Your task to perform on an android device: find which apps use the phone's location Image 0: 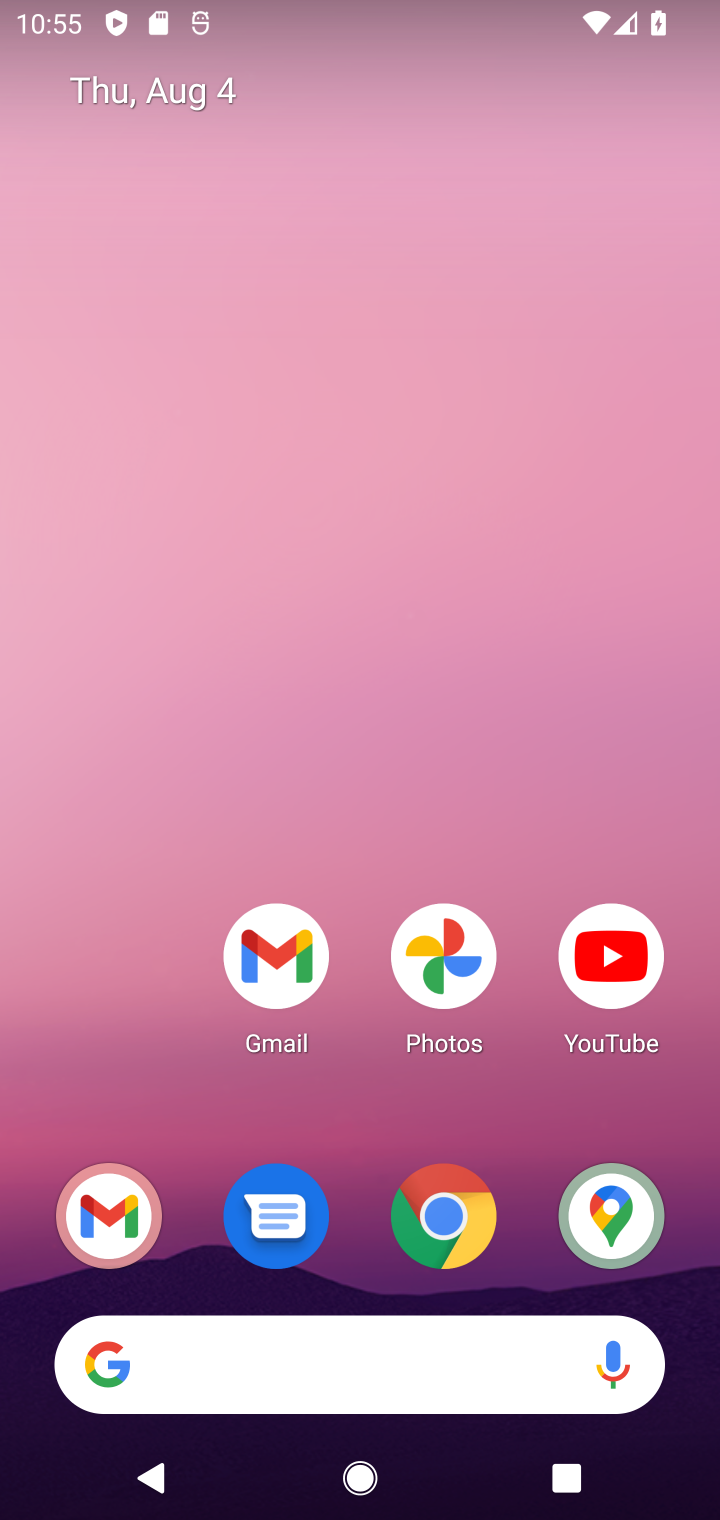
Step 0: drag from (346, 850) to (445, 0)
Your task to perform on an android device: find which apps use the phone's location Image 1: 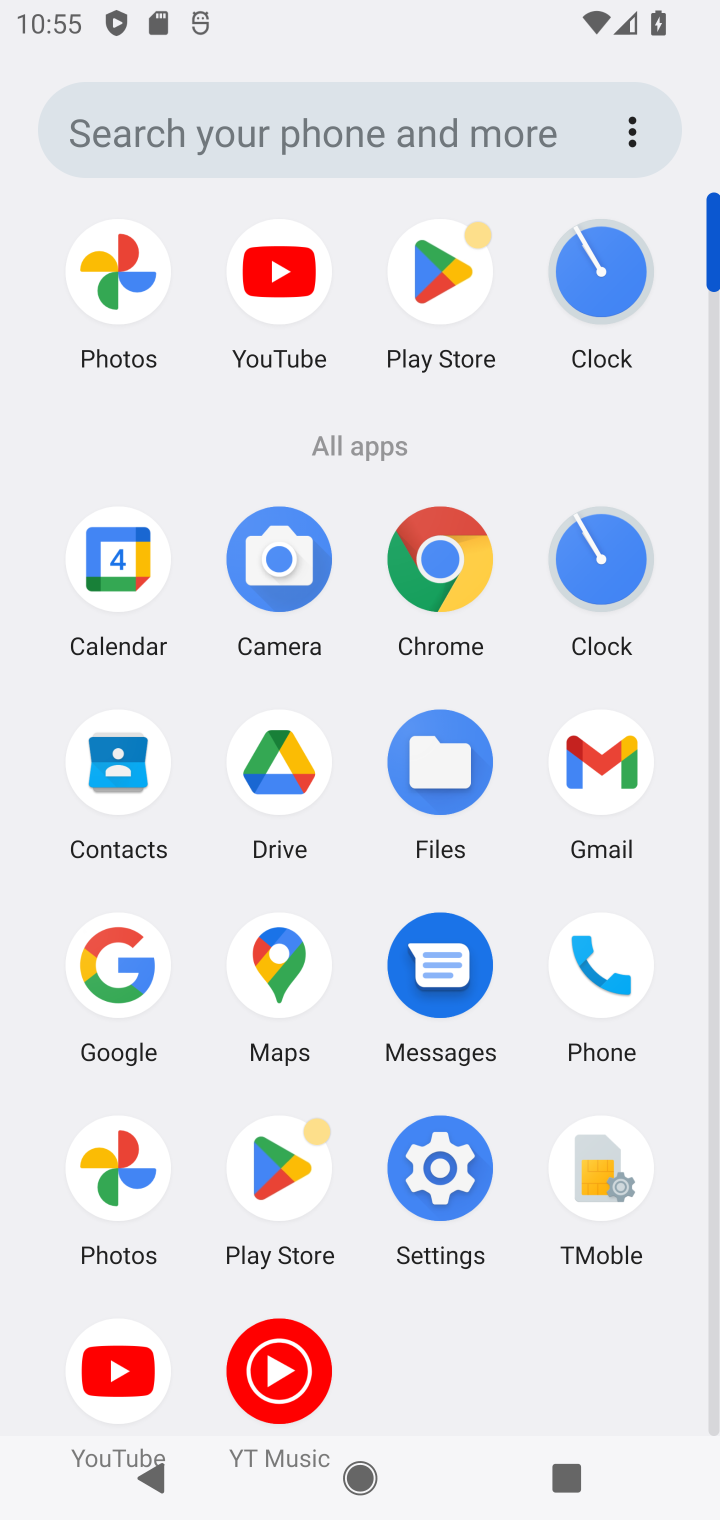
Step 1: click (426, 1162)
Your task to perform on an android device: find which apps use the phone's location Image 2: 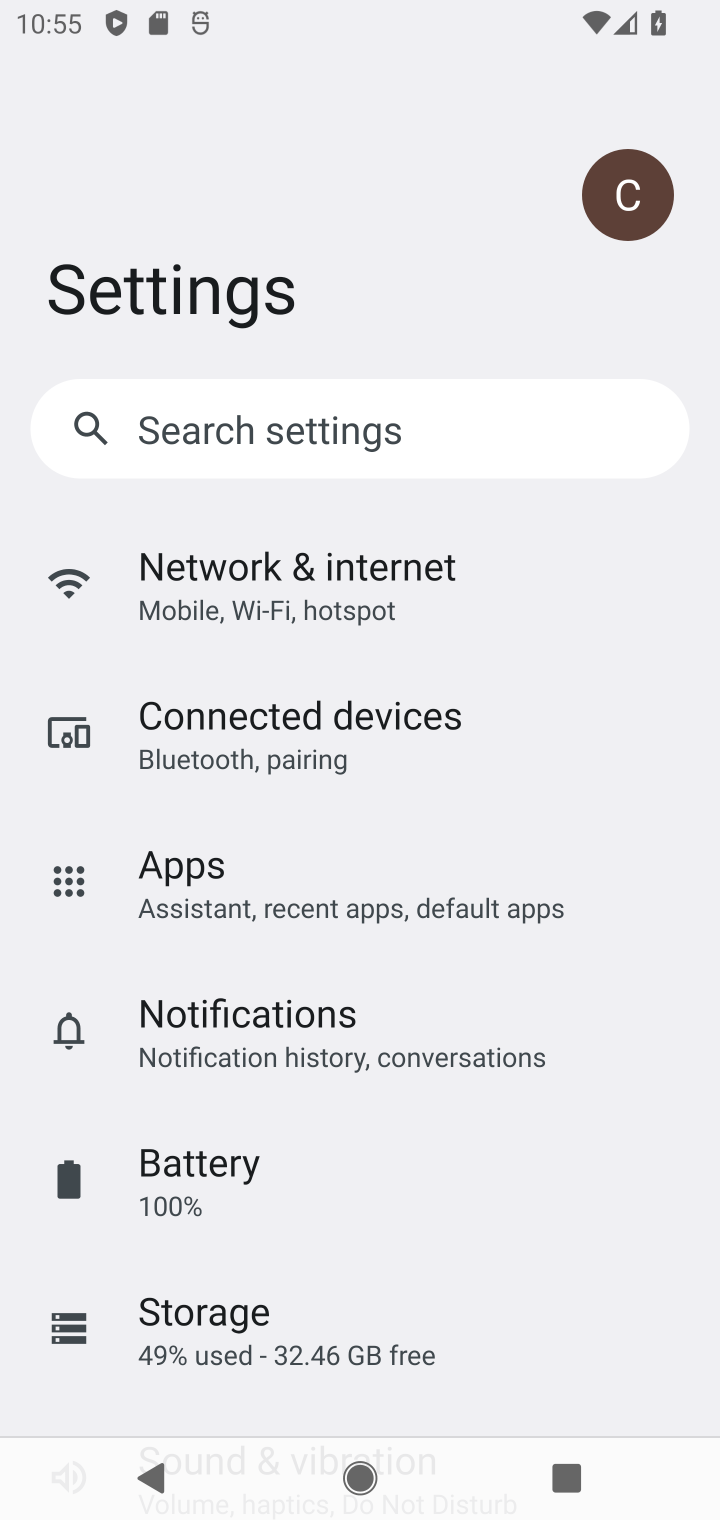
Step 2: drag from (426, 1225) to (455, 1)
Your task to perform on an android device: find which apps use the phone's location Image 3: 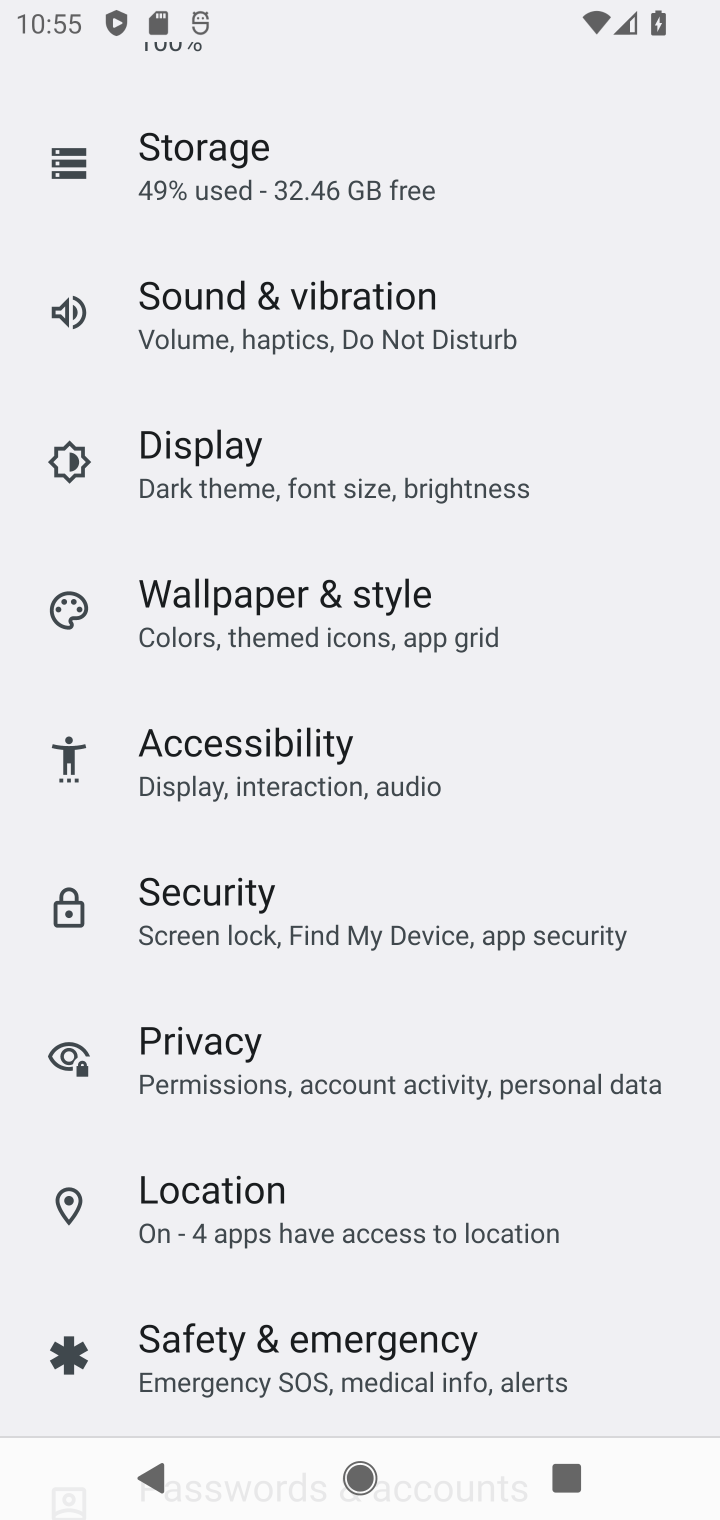
Step 3: click (421, 1189)
Your task to perform on an android device: find which apps use the phone's location Image 4: 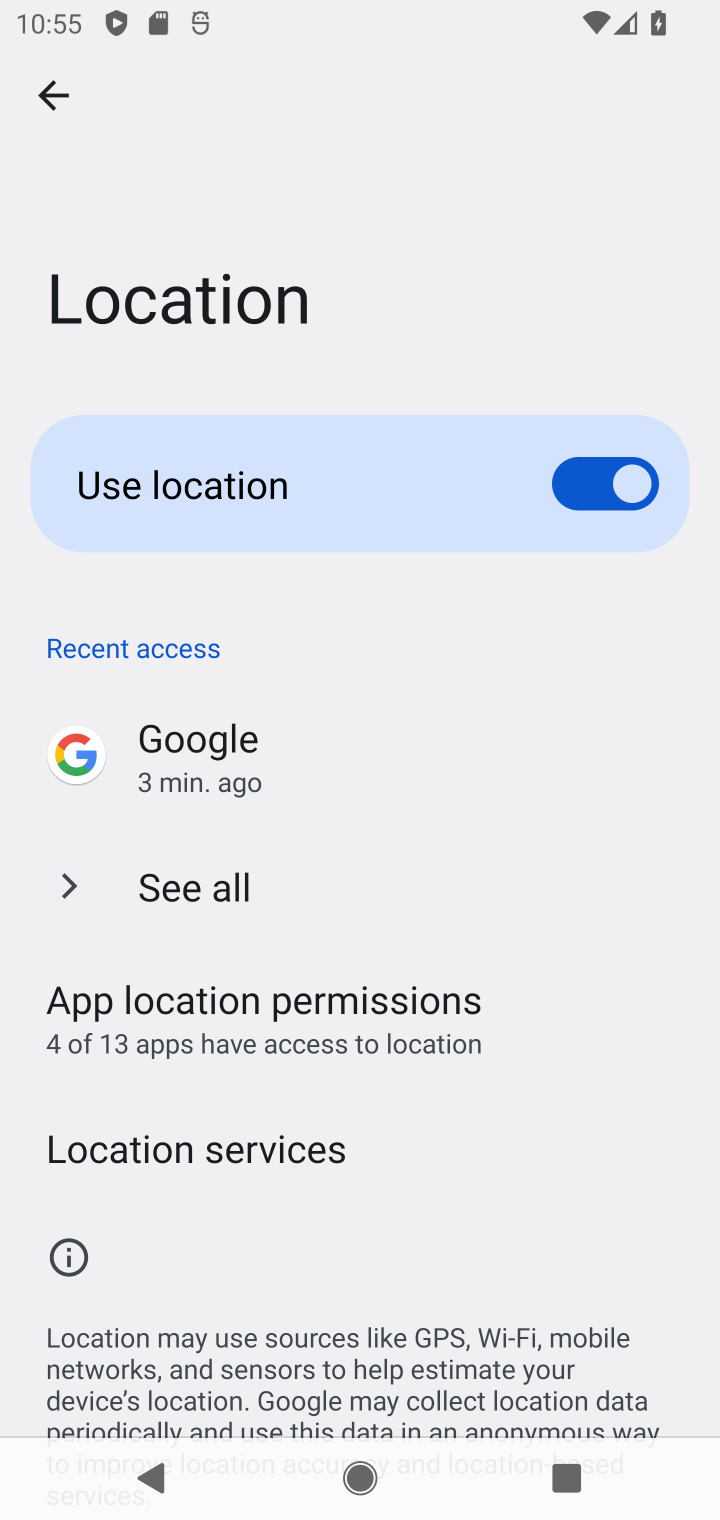
Step 4: click (215, 884)
Your task to perform on an android device: find which apps use the phone's location Image 5: 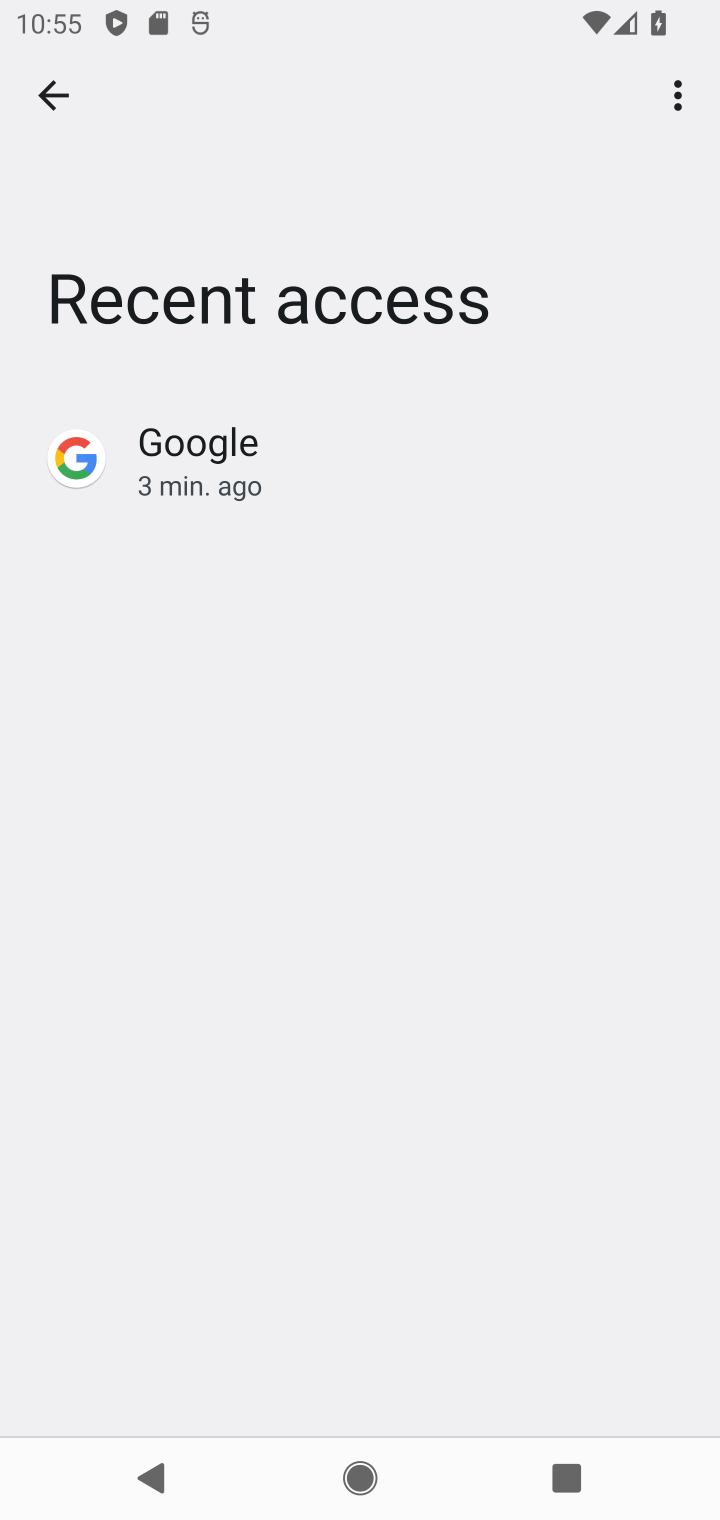
Step 5: click (59, 80)
Your task to perform on an android device: find which apps use the phone's location Image 6: 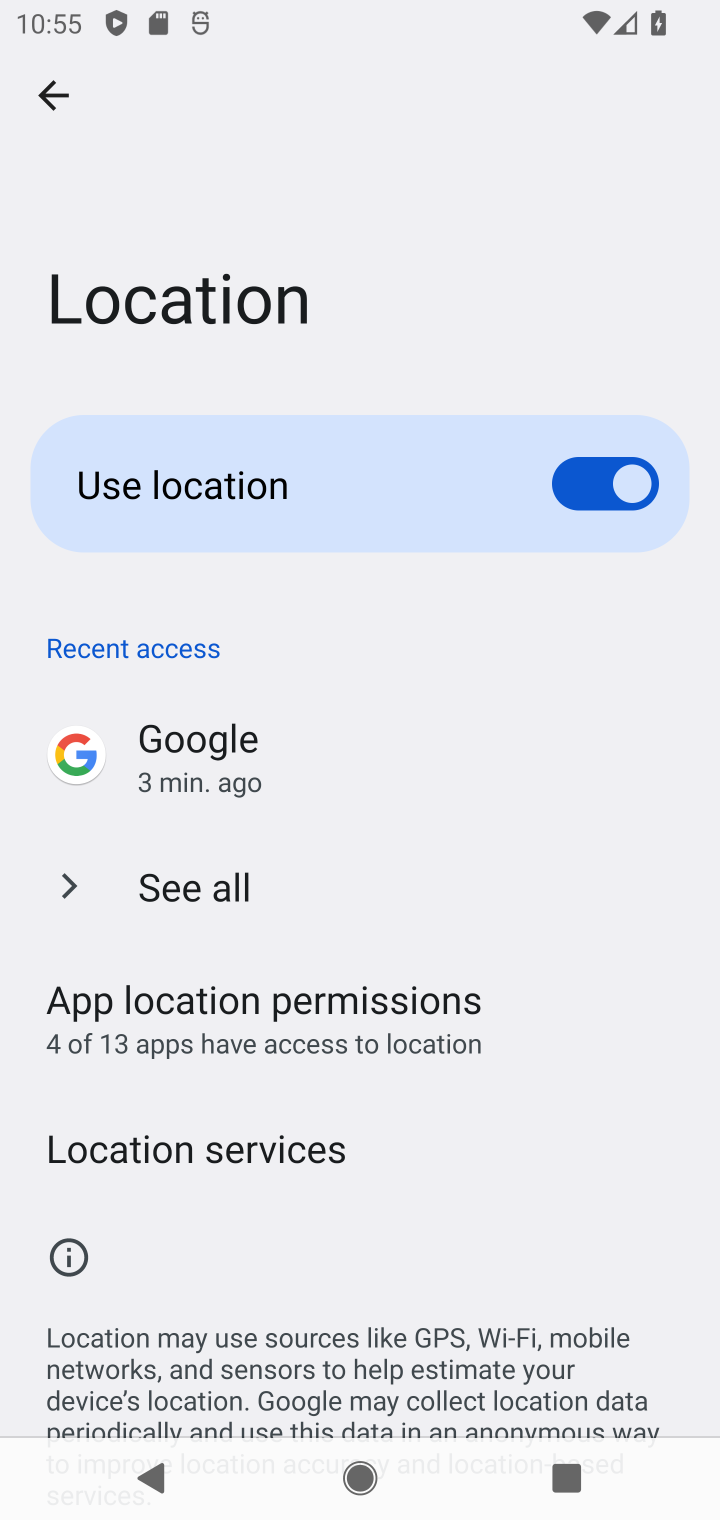
Step 6: click (336, 1017)
Your task to perform on an android device: find which apps use the phone's location Image 7: 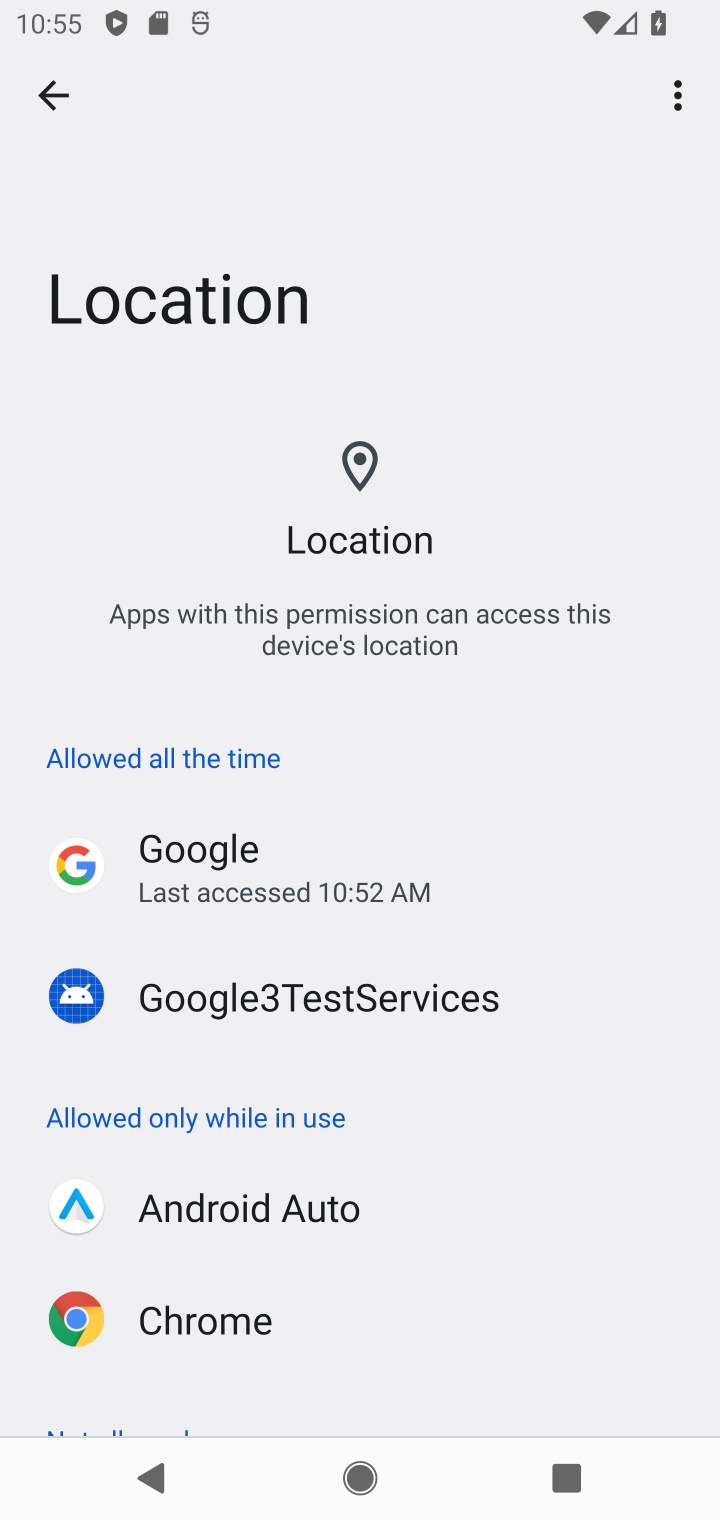
Step 7: task complete